Your task to perform on an android device: Open calendar and show me the fourth week of next month Image 0: 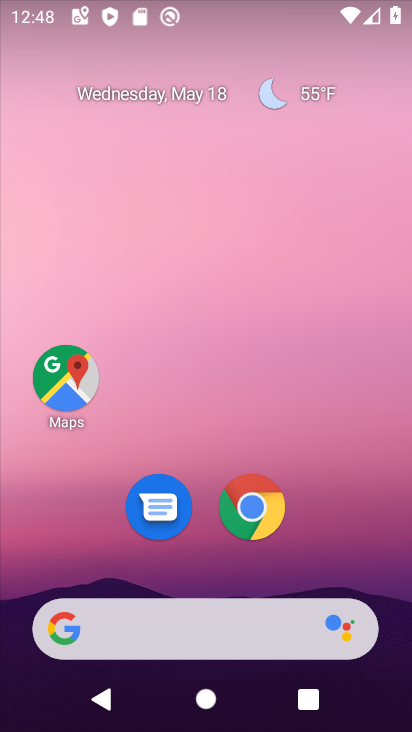
Step 0: drag from (396, 618) to (335, 45)
Your task to perform on an android device: Open calendar and show me the fourth week of next month Image 1: 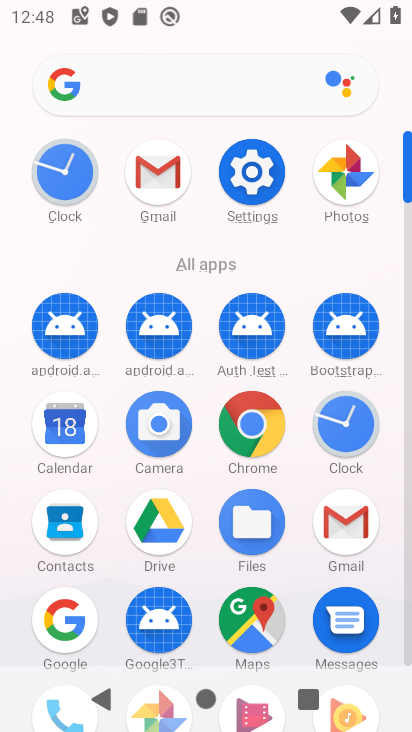
Step 1: click (407, 651)
Your task to perform on an android device: Open calendar and show me the fourth week of next month Image 2: 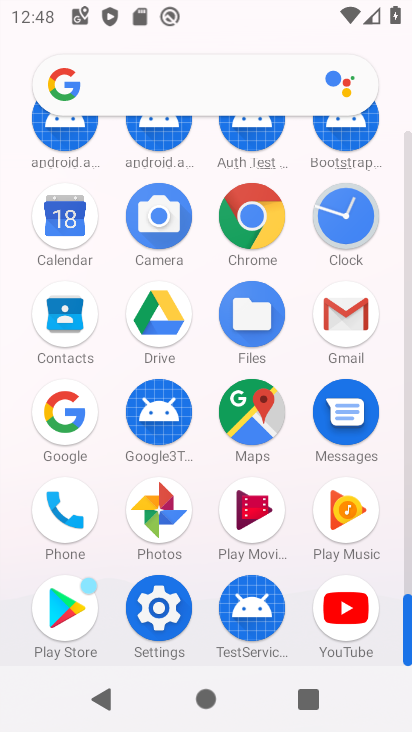
Step 2: click (63, 210)
Your task to perform on an android device: Open calendar and show me the fourth week of next month Image 3: 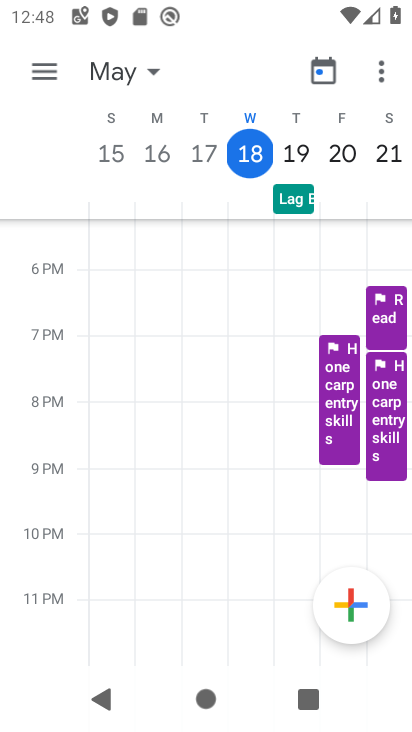
Step 3: click (150, 68)
Your task to perform on an android device: Open calendar and show me the fourth week of next month Image 4: 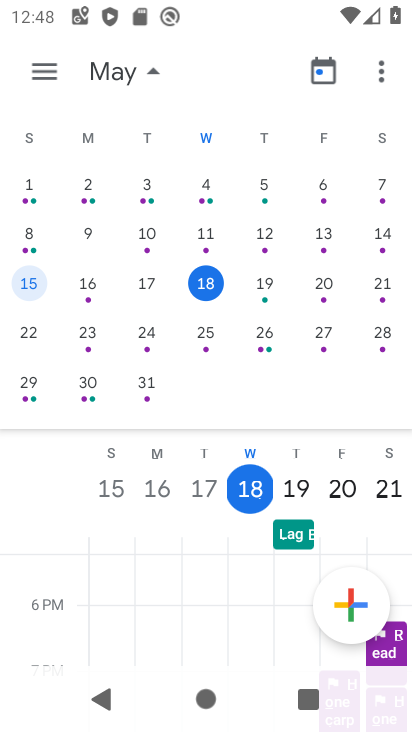
Step 4: drag from (377, 297) to (16, 229)
Your task to perform on an android device: Open calendar and show me the fourth week of next month Image 5: 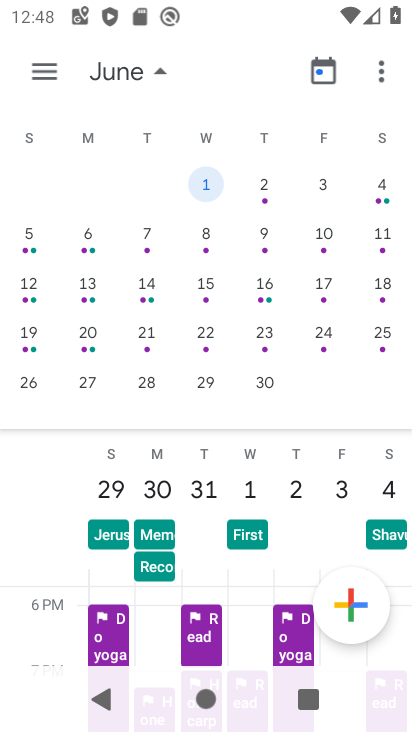
Step 5: click (32, 342)
Your task to perform on an android device: Open calendar and show me the fourth week of next month Image 6: 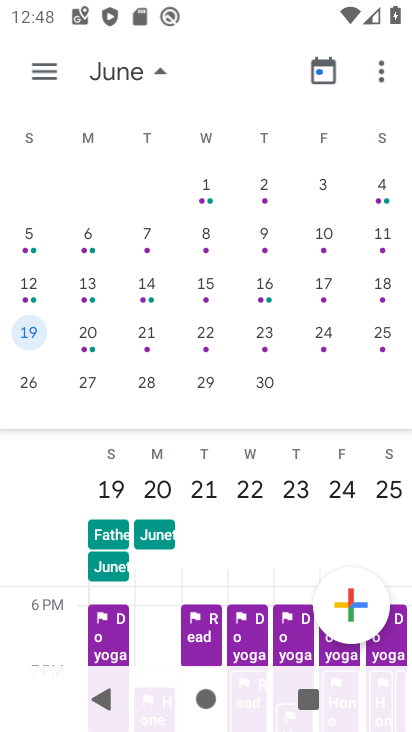
Step 6: task complete